Your task to perform on an android device: Search for seafood restaurants on Google Maps Image 0: 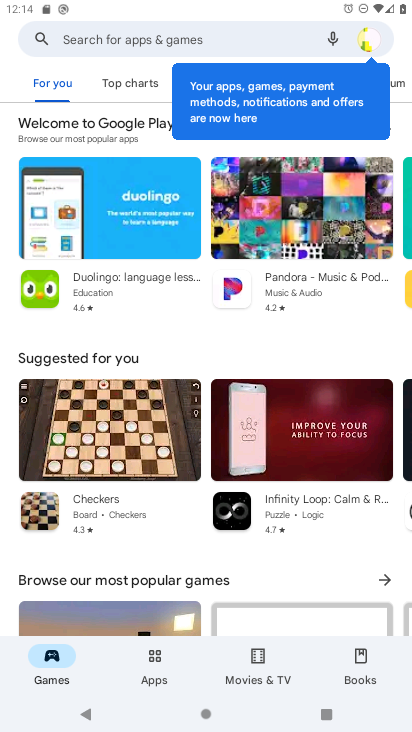
Step 0: press home button
Your task to perform on an android device: Search for seafood restaurants on Google Maps Image 1: 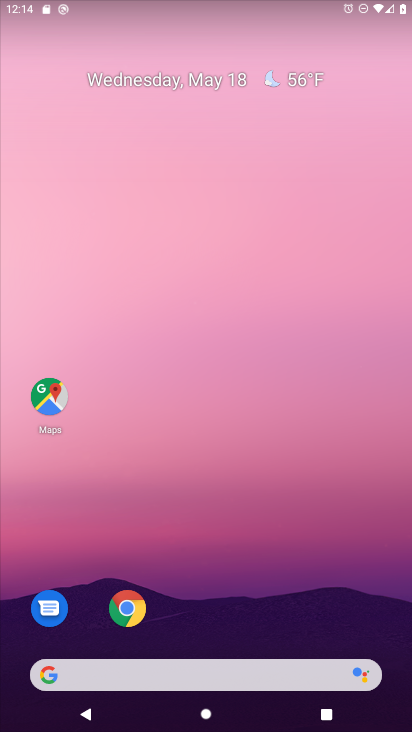
Step 1: drag from (262, 685) to (258, 283)
Your task to perform on an android device: Search for seafood restaurants on Google Maps Image 2: 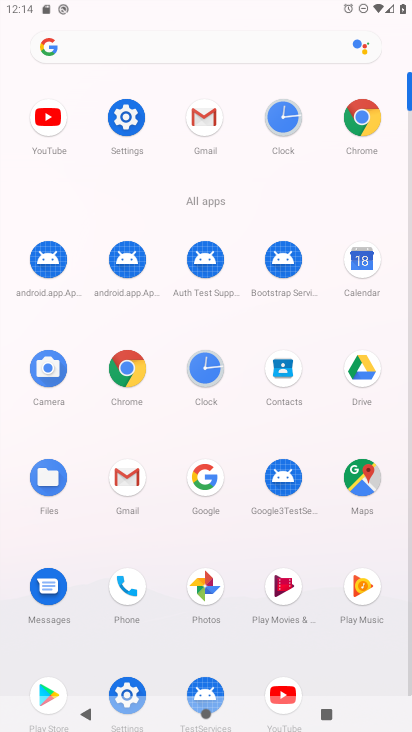
Step 2: click (365, 479)
Your task to perform on an android device: Search for seafood restaurants on Google Maps Image 3: 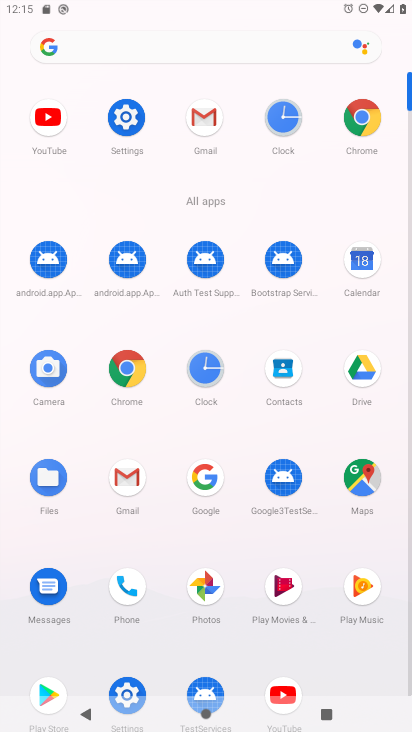
Step 3: click (362, 485)
Your task to perform on an android device: Search for seafood restaurants on Google Maps Image 4: 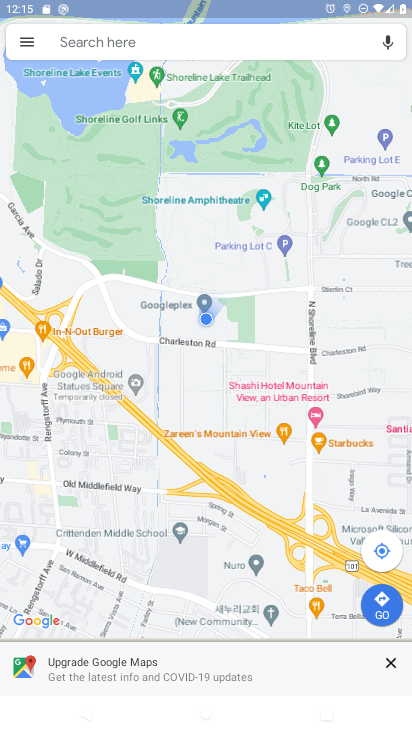
Step 4: click (93, 44)
Your task to perform on an android device: Search for seafood restaurants on Google Maps Image 5: 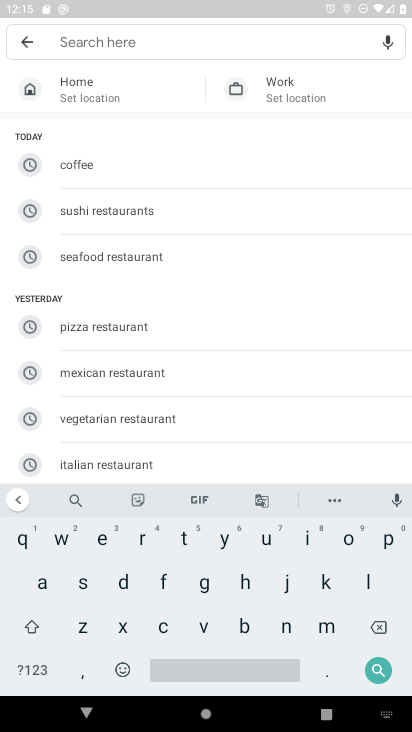
Step 5: click (89, 259)
Your task to perform on an android device: Search for seafood restaurants on Google Maps Image 6: 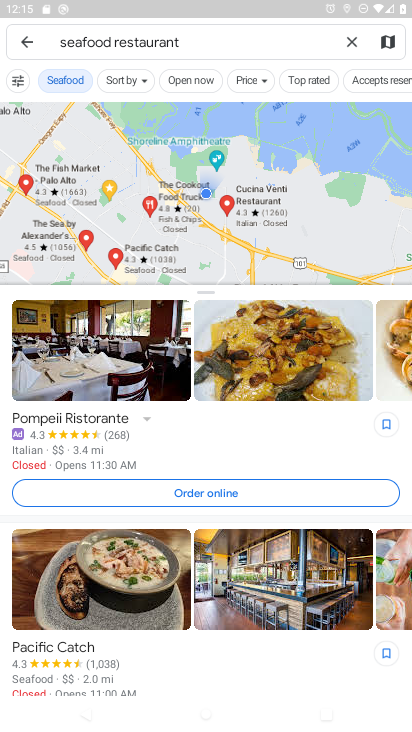
Step 6: task complete